Your task to perform on an android device: Go to calendar. Show me events next week Image 0: 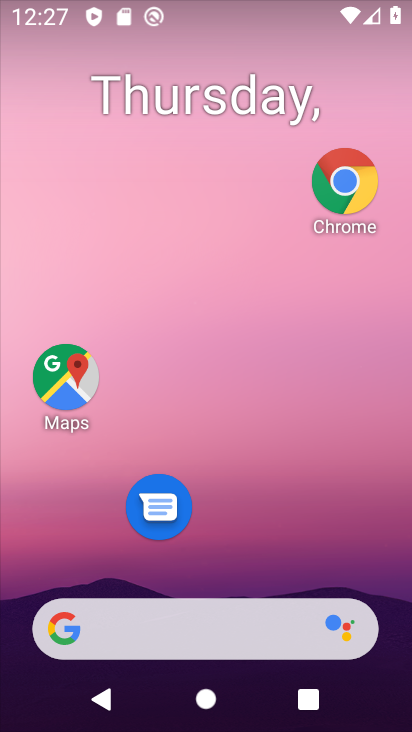
Step 0: drag from (284, 339) to (263, 217)
Your task to perform on an android device: Go to calendar. Show me events next week Image 1: 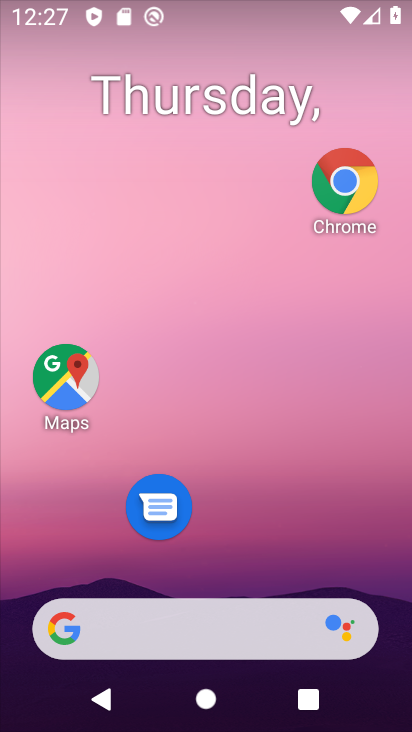
Step 1: drag from (234, 623) to (262, 79)
Your task to perform on an android device: Go to calendar. Show me events next week Image 2: 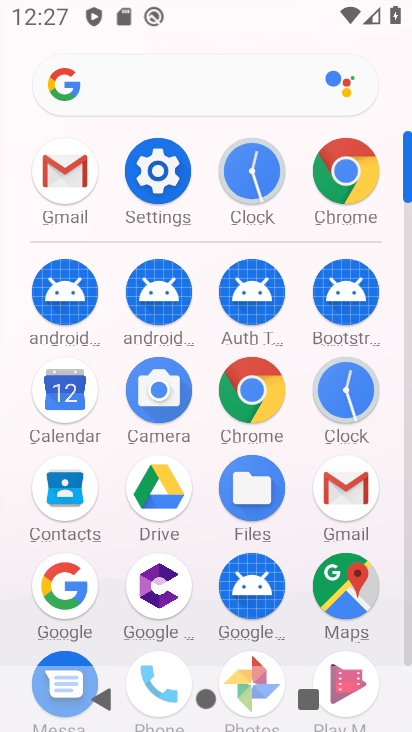
Step 2: click (73, 406)
Your task to perform on an android device: Go to calendar. Show me events next week Image 3: 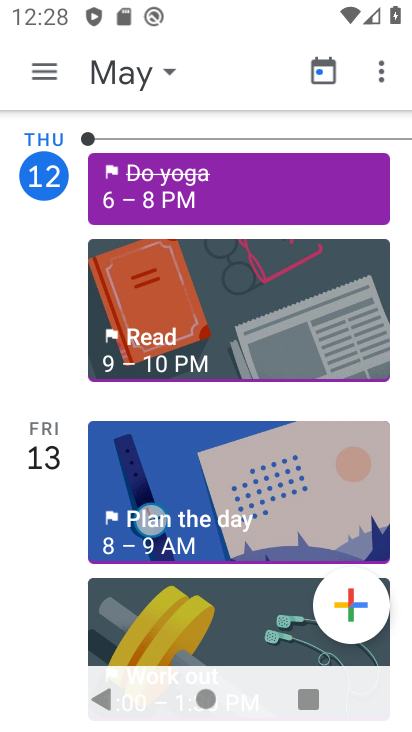
Step 3: click (151, 80)
Your task to perform on an android device: Go to calendar. Show me events next week Image 4: 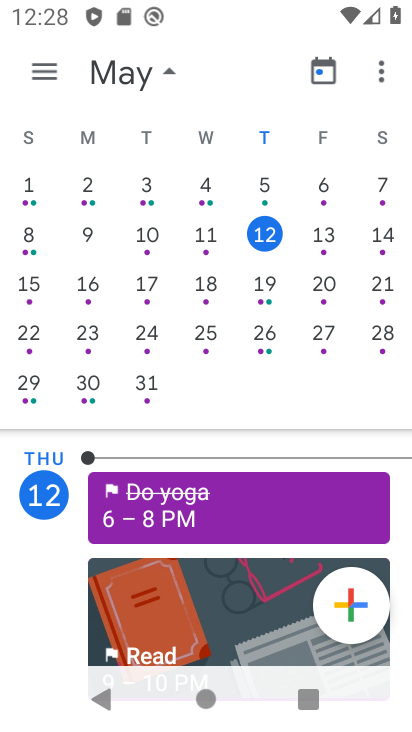
Step 4: click (38, 291)
Your task to perform on an android device: Go to calendar. Show me events next week Image 5: 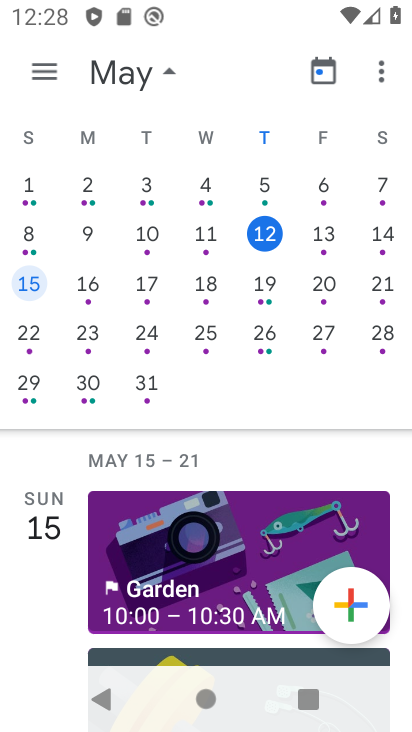
Step 5: task complete